Your task to perform on an android device: turn on airplane mode Image 0: 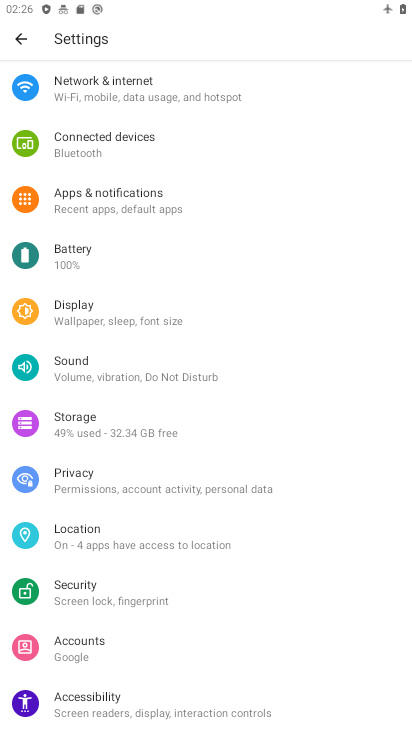
Step 0: drag from (123, 155) to (171, 531)
Your task to perform on an android device: turn on airplane mode Image 1: 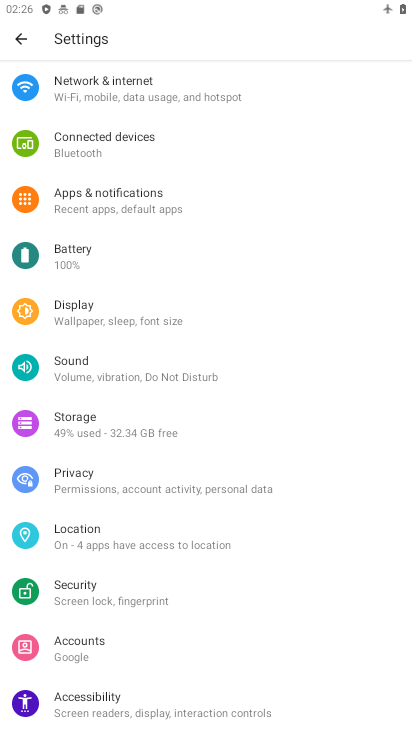
Step 1: click (121, 88)
Your task to perform on an android device: turn on airplane mode Image 2: 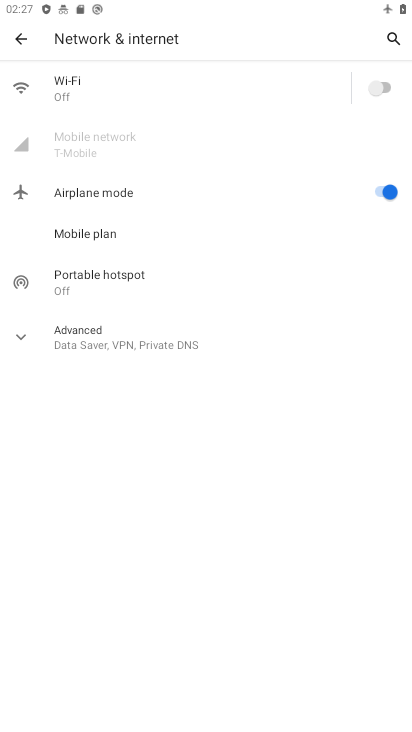
Step 2: task complete